Your task to perform on an android device: turn off javascript in the chrome app Image 0: 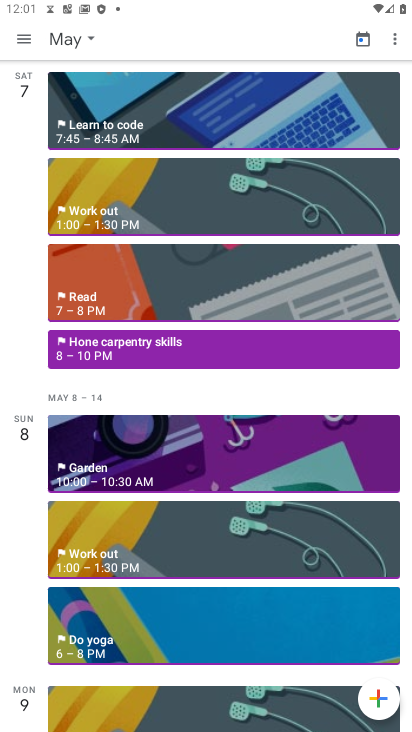
Step 0: press back button
Your task to perform on an android device: turn off javascript in the chrome app Image 1: 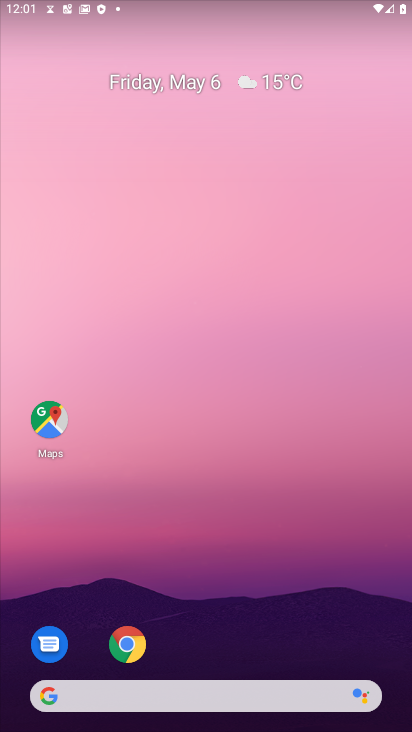
Step 1: drag from (317, 603) to (282, 3)
Your task to perform on an android device: turn off javascript in the chrome app Image 2: 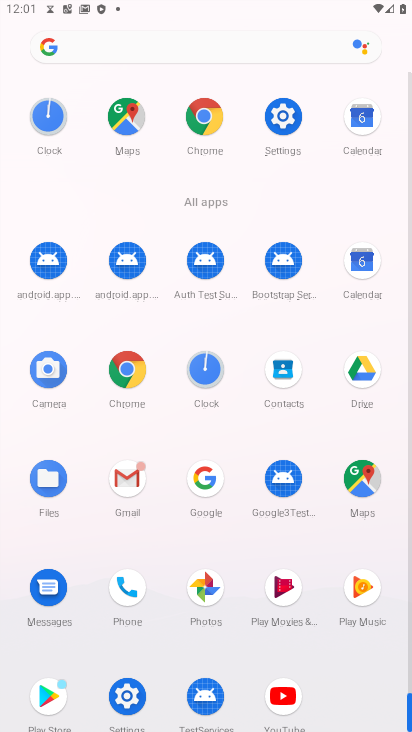
Step 2: drag from (10, 514) to (19, 165)
Your task to perform on an android device: turn off javascript in the chrome app Image 3: 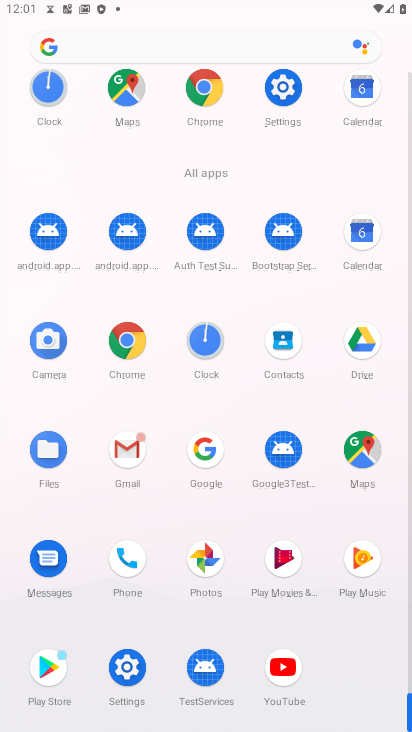
Step 3: click (122, 336)
Your task to perform on an android device: turn off javascript in the chrome app Image 4: 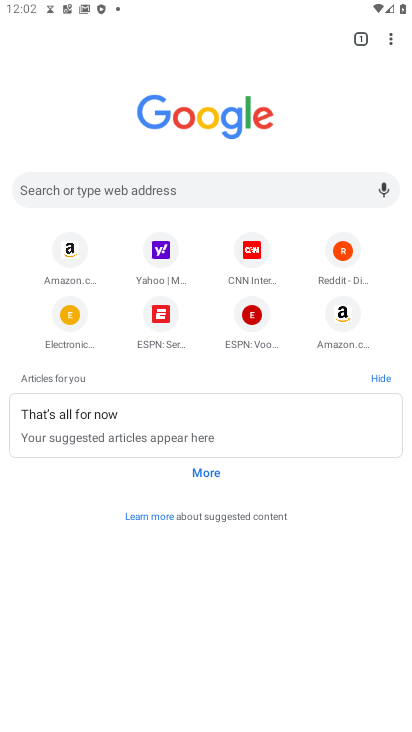
Step 4: drag from (391, 43) to (270, 332)
Your task to perform on an android device: turn off javascript in the chrome app Image 5: 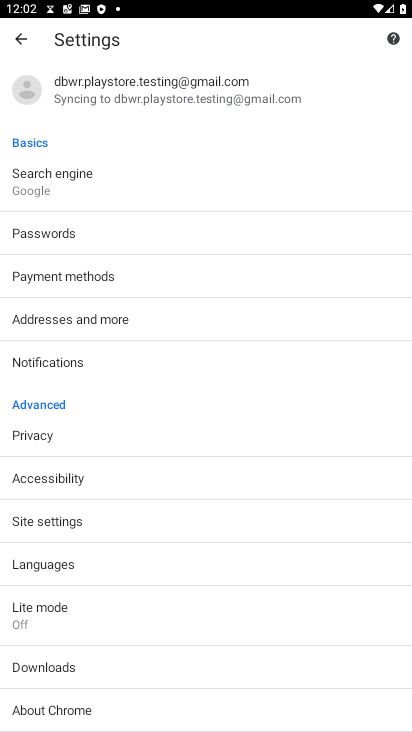
Step 5: drag from (297, 549) to (283, 169)
Your task to perform on an android device: turn off javascript in the chrome app Image 6: 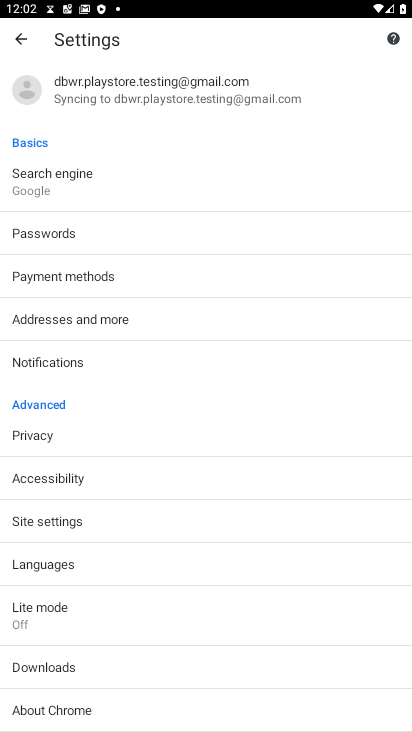
Step 6: click (87, 521)
Your task to perform on an android device: turn off javascript in the chrome app Image 7: 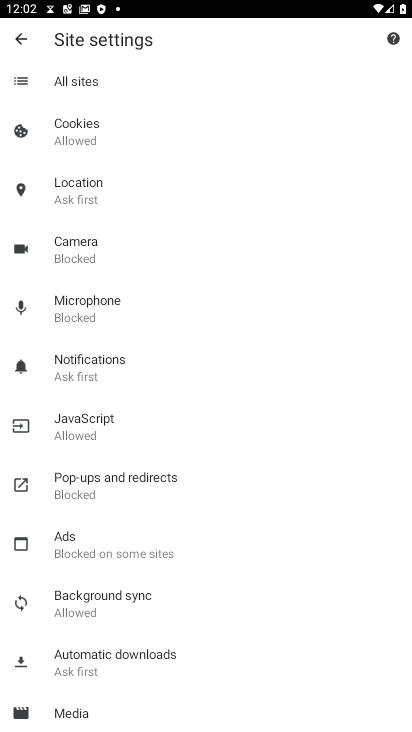
Step 7: drag from (271, 590) to (317, 73)
Your task to perform on an android device: turn off javascript in the chrome app Image 8: 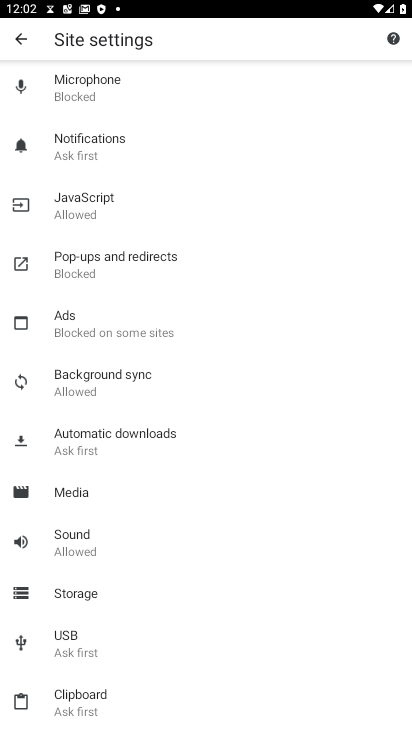
Step 8: click (115, 205)
Your task to perform on an android device: turn off javascript in the chrome app Image 9: 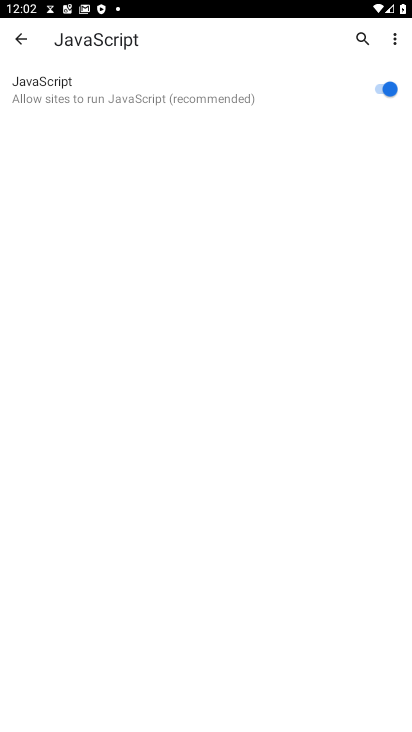
Step 9: click (377, 89)
Your task to perform on an android device: turn off javascript in the chrome app Image 10: 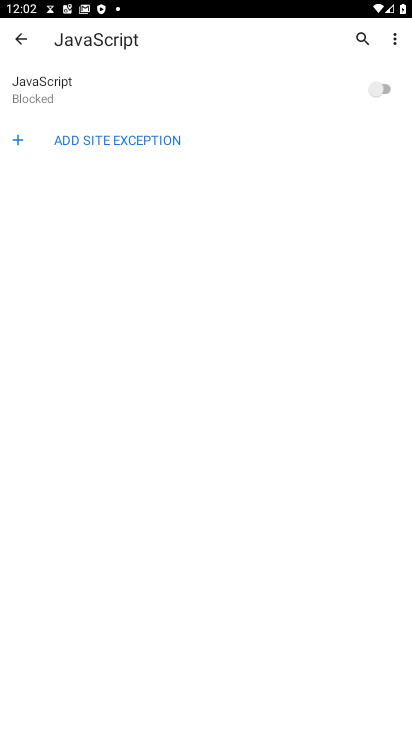
Step 10: task complete